Your task to perform on an android device: Go to accessibility settings Image 0: 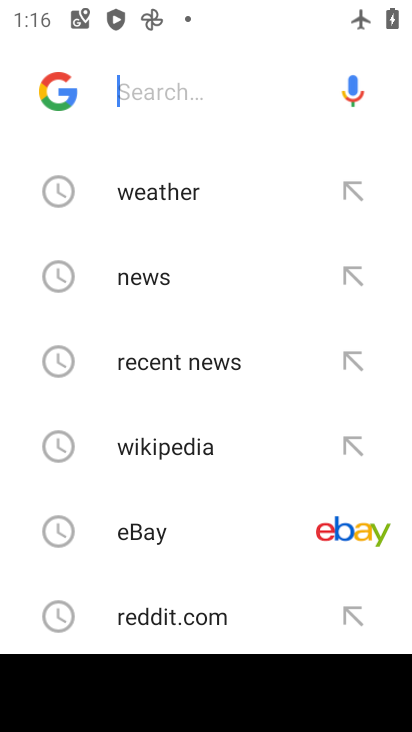
Step 0: press home button
Your task to perform on an android device: Go to accessibility settings Image 1: 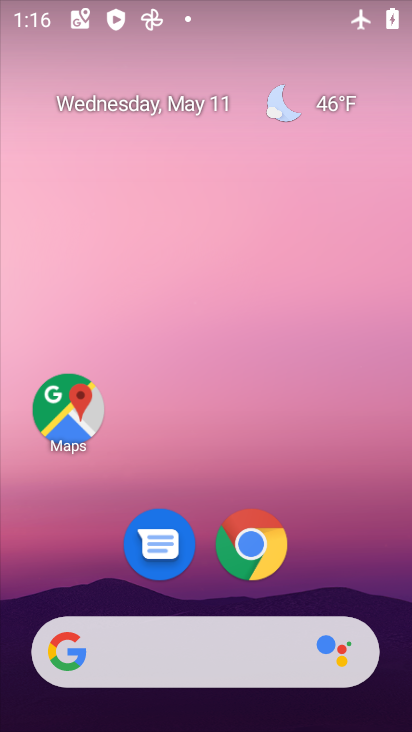
Step 1: drag from (394, 649) to (294, 64)
Your task to perform on an android device: Go to accessibility settings Image 2: 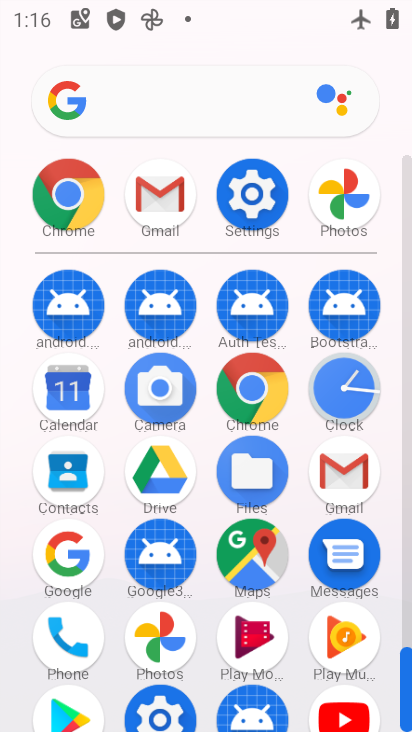
Step 2: click (408, 623)
Your task to perform on an android device: Go to accessibility settings Image 3: 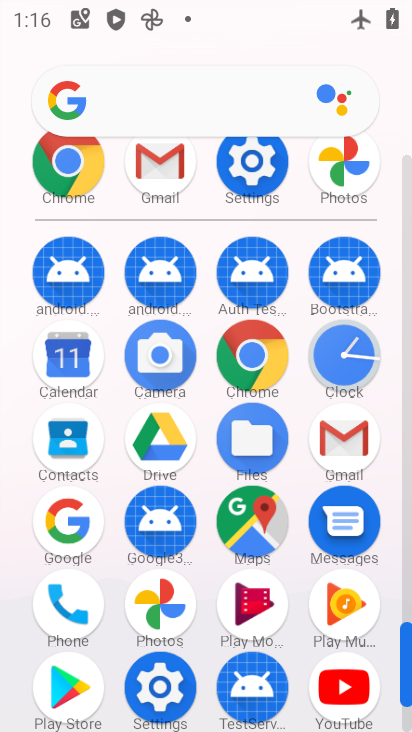
Step 3: click (159, 684)
Your task to perform on an android device: Go to accessibility settings Image 4: 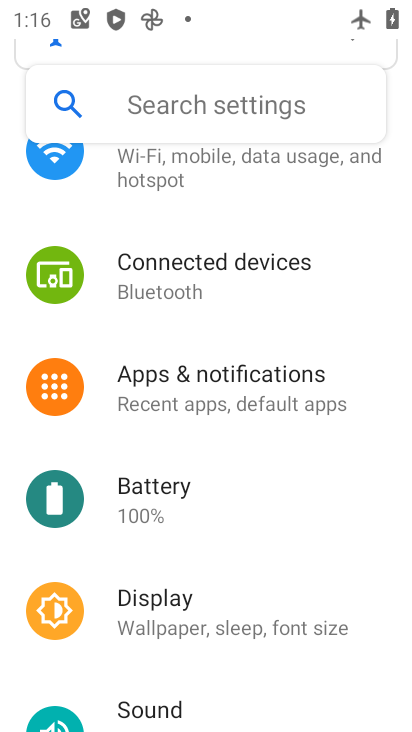
Step 4: drag from (367, 641) to (370, 162)
Your task to perform on an android device: Go to accessibility settings Image 5: 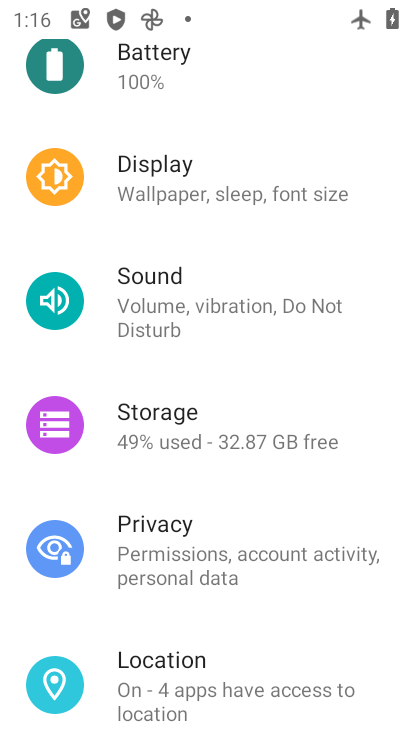
Step 5: drag from (356, 581) to (381, 80)
Your task to perform on an android device: Go to accessibility settings Image 6: 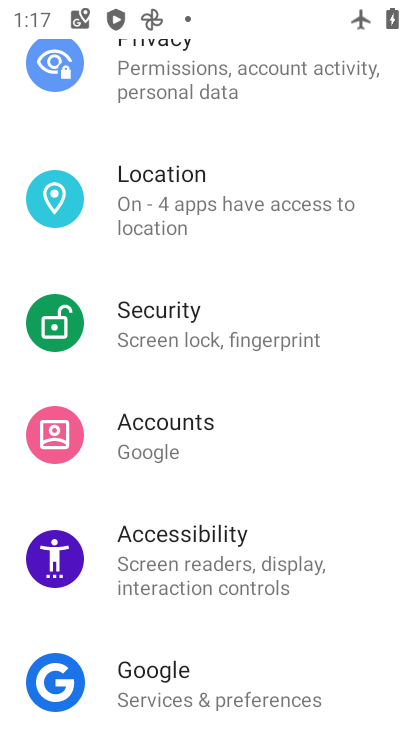
Step 6: click (136, 538)
Your task to perform on an android device: Go to accessibility settings Image 7: 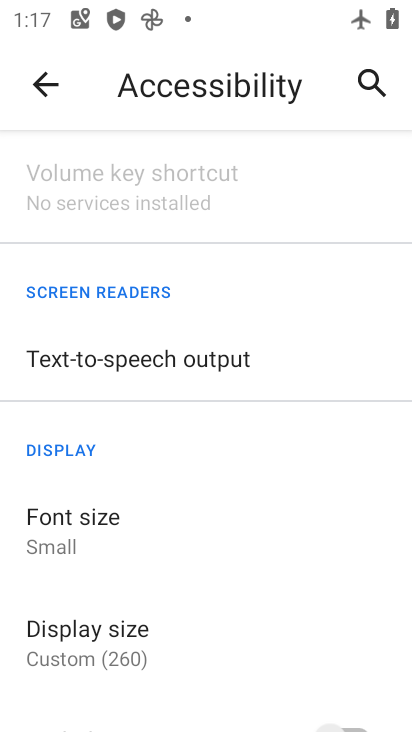
Step 7: task complete